Your task to perform on an android device: set default search engine in the chrome app Image 0: 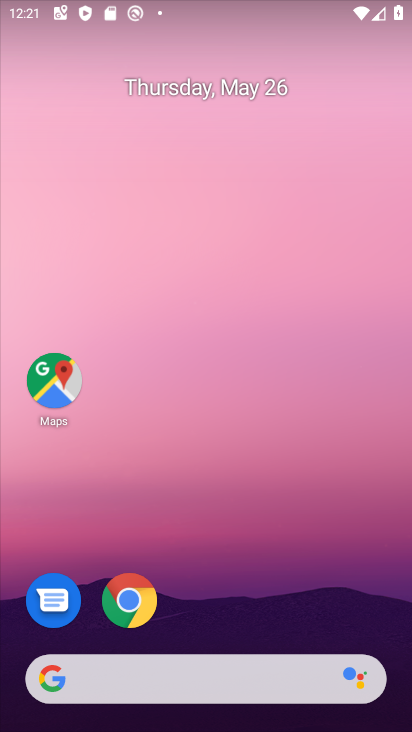
Step 0: press home button
Your task to perform on an android device: set default search engine in the chrome app Image 1: 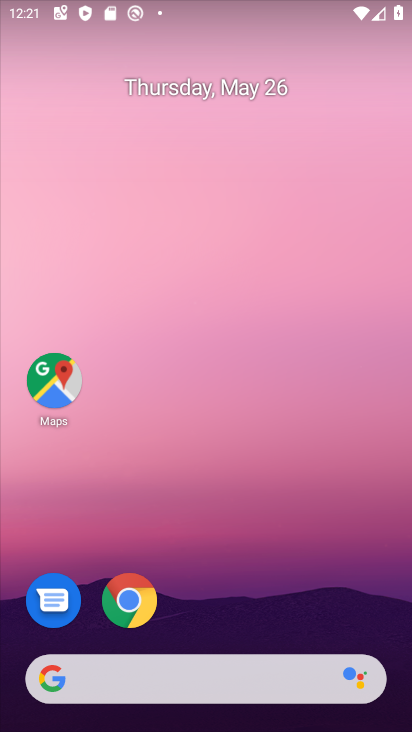
Step 1: drag from (215, 328) to (293, 16)
Your task to perform on an android device: set default search engine in the chrome app Image 2: 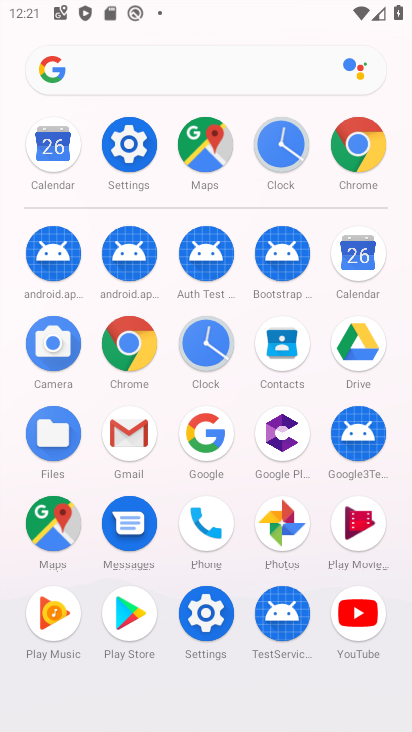
Step 2: click (134, 338)
Your task to perform on an android device: set default search engine in the chrome app Image 3: 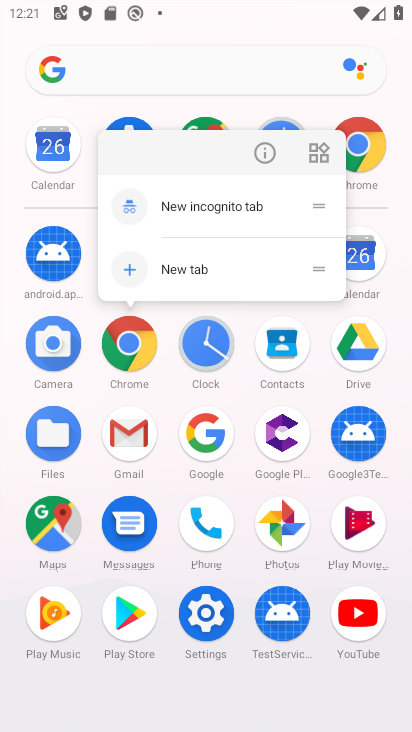
Step 3: click (128, 356)
Your task to perform on an android device: set default search engine in the chrome app Image 4: 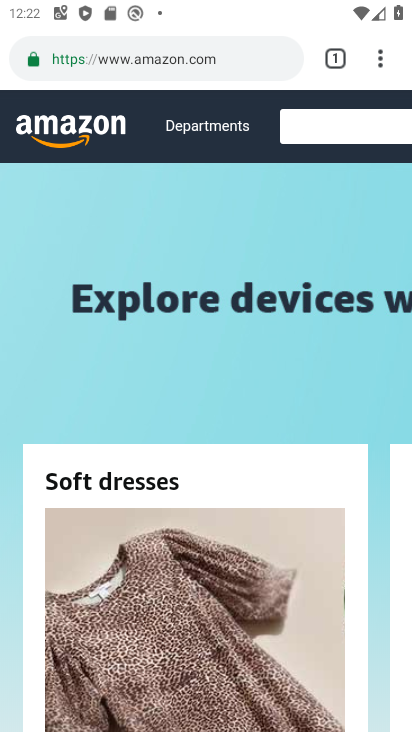
Step 4: click (251, 60)
Your task to perform on an android device: set default search engine in the chrome app Image 5: 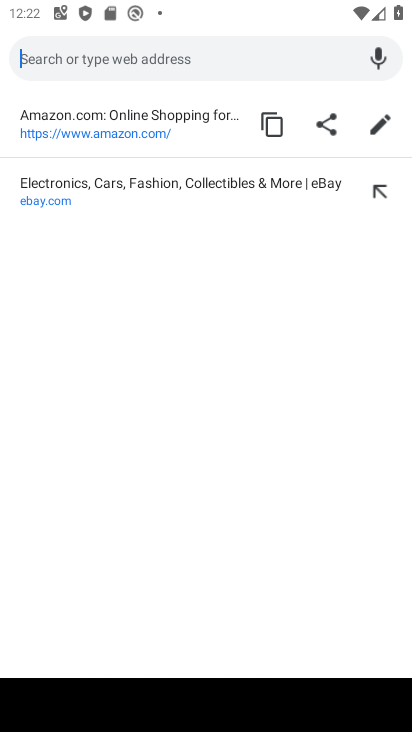
Step 5: press back button
Your task to perform on an android device: set default search engine in the chrome app Image 6: 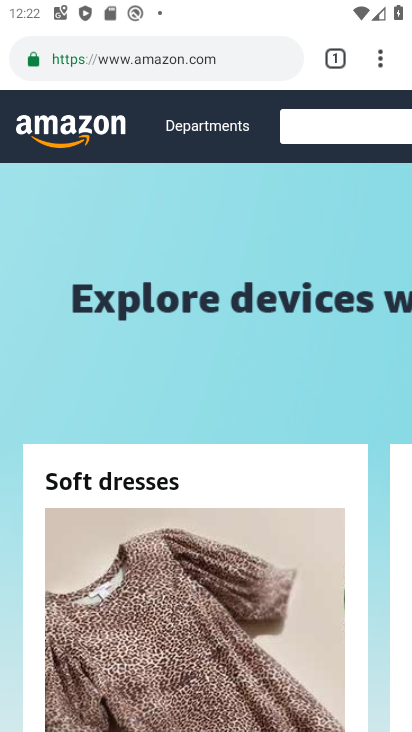
Step 6: click (376, 56)
Your task to perform on an android device: set default search engine in the chrome app Image 7: 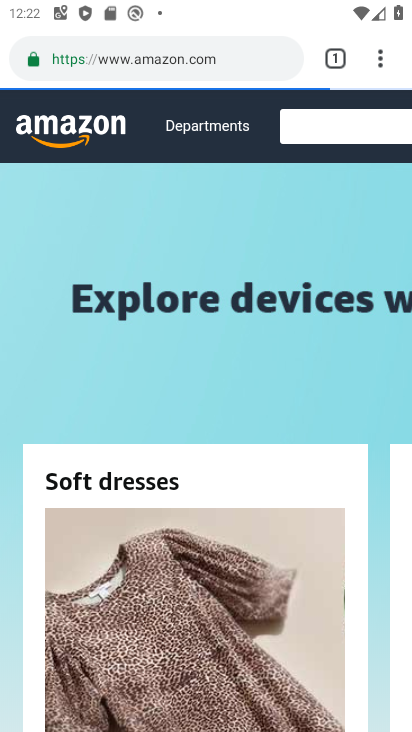
Step 7: drag from (376, 56) to (206, 633)
Your task to perform on an android device: set default search engine in the chrome app Image 8: 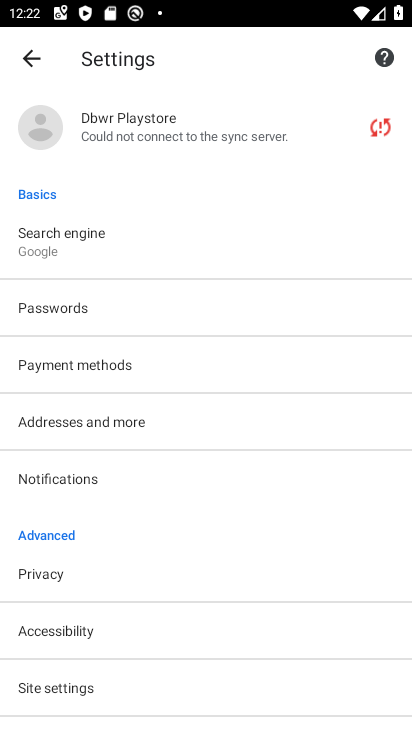
Step 8: click (84, 234)
Your task to perform on an android device: set default search engine in the chrome app Image 9: 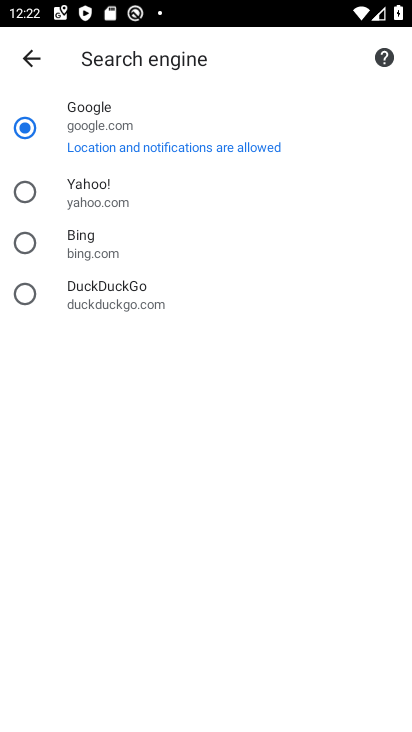
Step 9: task complete